Your task to perform on an android device: delete browsing data in the chrome app Image 0: 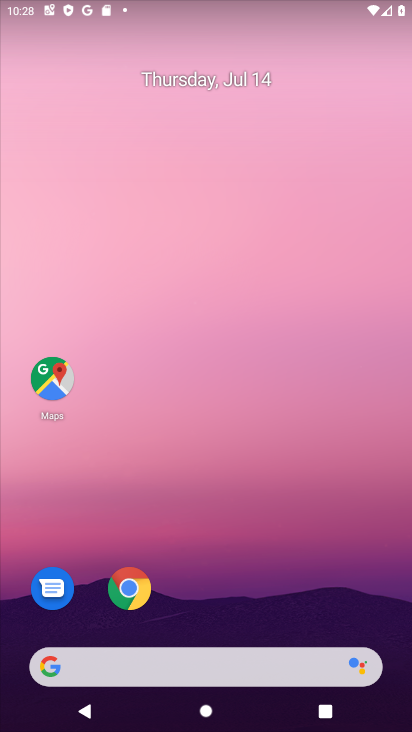
Step 0: click (132, 592)
Your task to perform on an android device: delete browsing data in the chrome app Image 1: 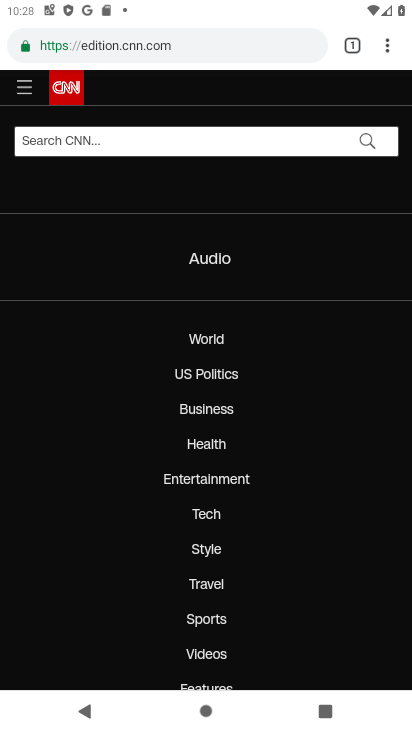
Step 1: drag from (386, 43) to (236, 543)
Your task to perform on an android device: delete browsing data in the chrome app Image 2: 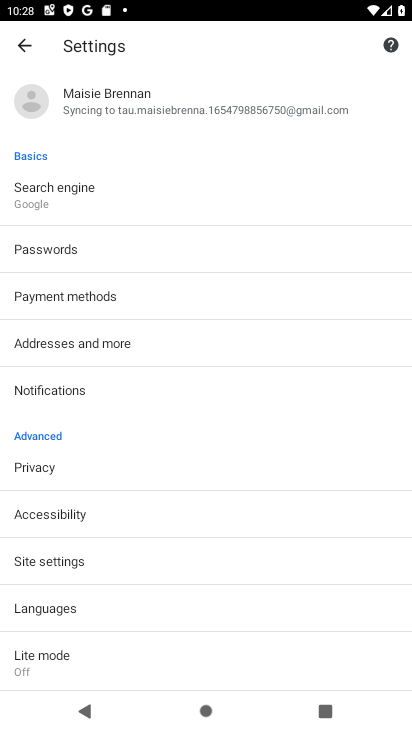
Step 2: click (50, 469)
Your task to perform on an android device: delete browsing data in the chrome app Image 3: 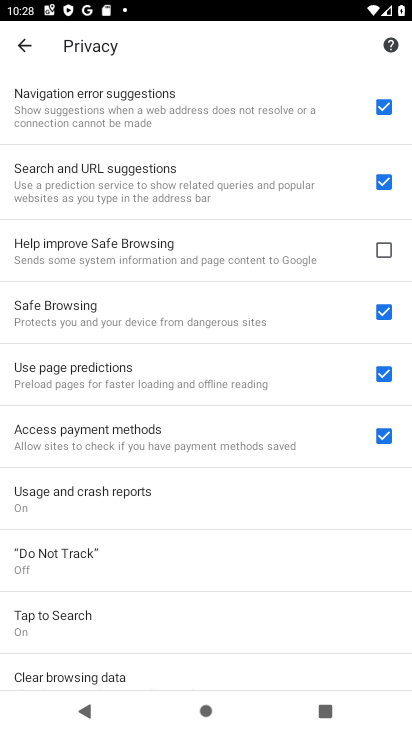
Step 3: drag from (252, 668) to (386, 27)
Your task to perform on an android device: delete browsing data in the chrome app Image 4: 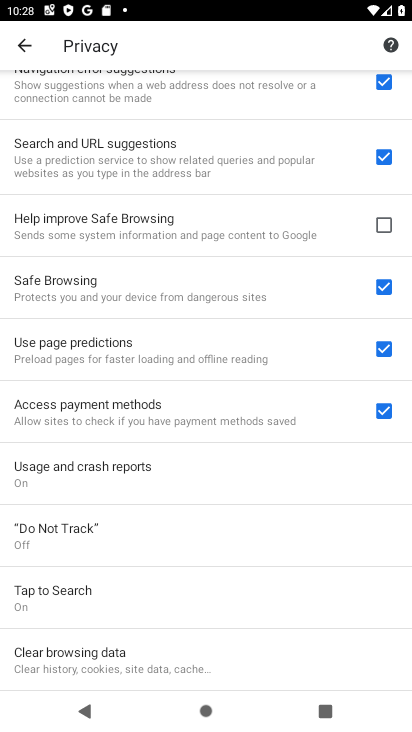
Step 4: click (328, 663)
Your task to perform on an android device: delete browsing data in the chrome app Image 5: 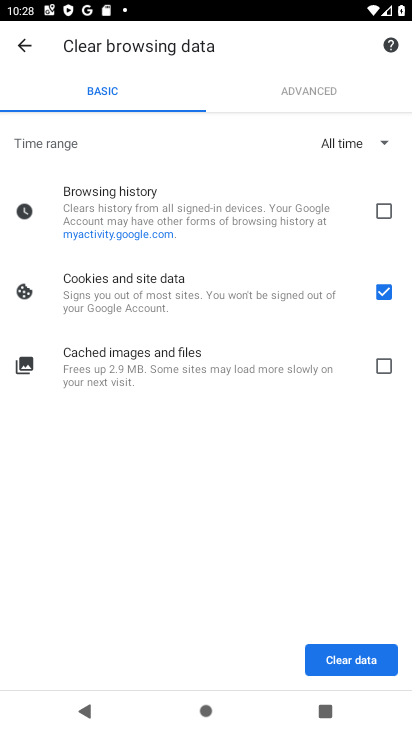
Step 5: click (388, 207)
Your task to perform on an android device: delete browsing data in the chrome app Image 6: 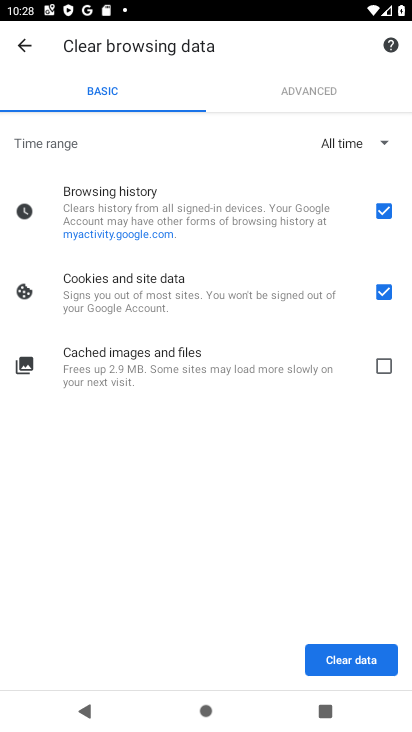
Step 6: click (384, 359)
Your task to perform on an android device: delete browsing data in the chrome app Image 7: 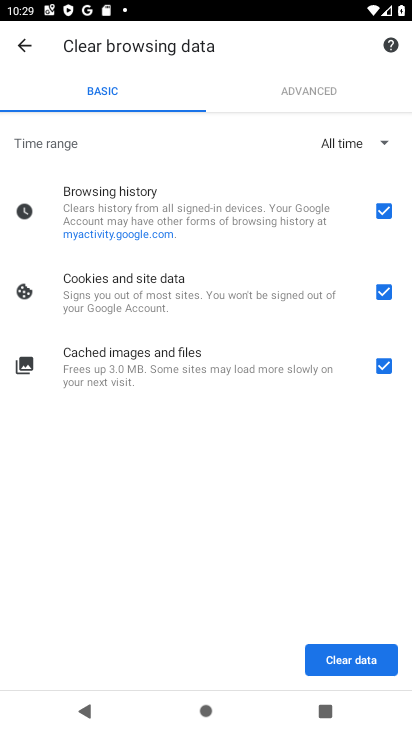
Step 7: click (344, 658)
Your task to perform on an android device: delete browsing data in the chrome app Image 8: 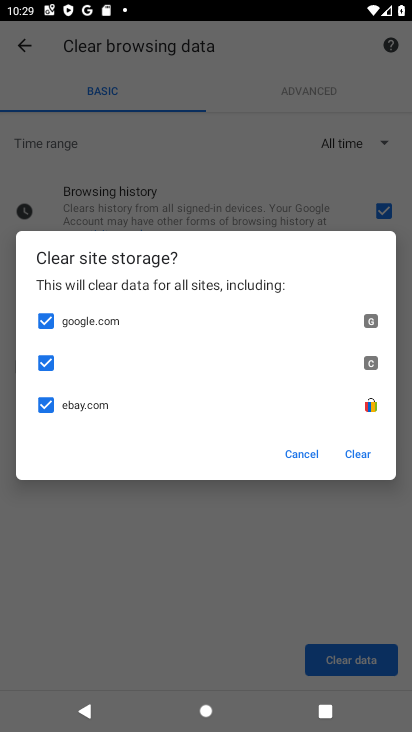
Step 8: click (358, 455)
Your task to perform on an android device: delete browsing data in the chrome app Image 9: 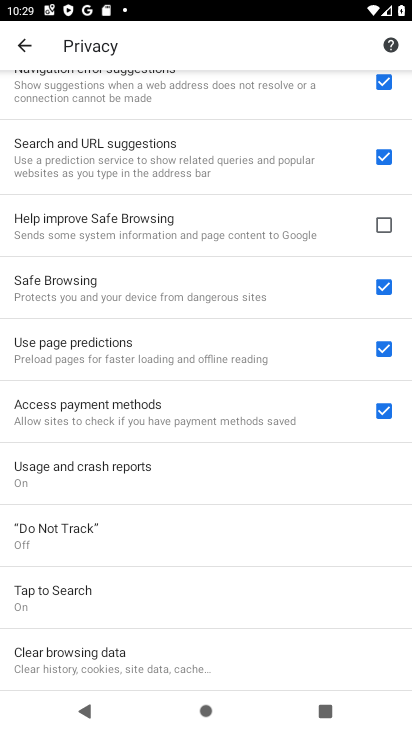
Step 9: task complete